Your task to perform on an android device: Search for logitech g502 on costco.com, select the first entry, and add it to the cart. Image 0: 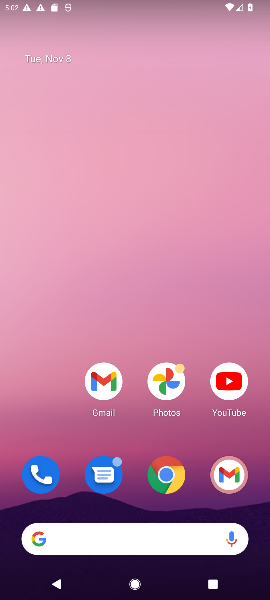
Step 0: drag from (137, 526) to (140, 201)
Your task to perform on an android device: Search for logitech g502 on costco.com, select the first entry, and add it to the cart. Image 1: 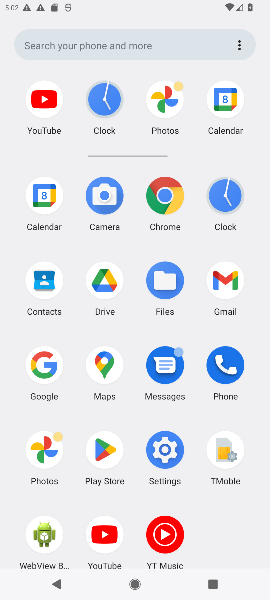
Step 1: click (51, 356)
Your task to perform on an android device: Search for logitech g502 on costco.com, select the first entry, and add it to the cart. Image 2: 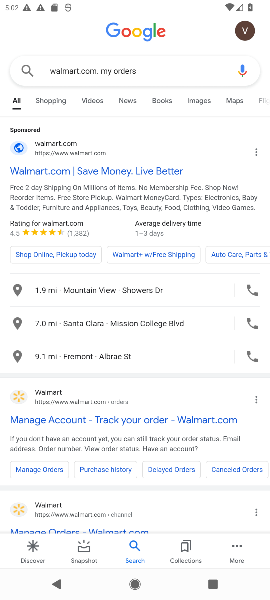
Step 2: click (163, 73)
Your task to perform on an android device: Search for logitech g502 on costco.com, select the first entry, and add it to the cart. Image 3: 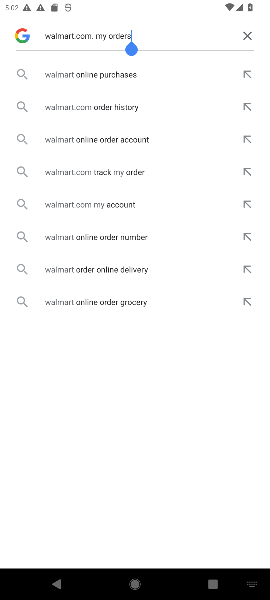
Step 3: click (250, 34)
Your task to perform on an android device: Search for logitech g502 on costco.com, select the first entry, and add it to the cart. Image 4: 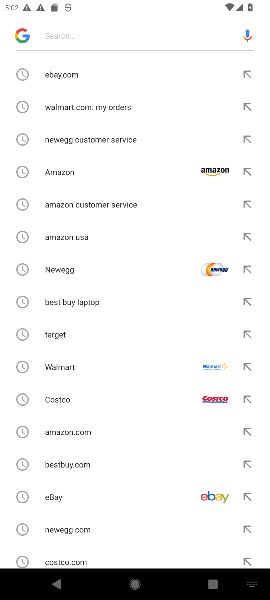
Step 4: click (102, 31)
Your task to perform on an android device: Search for logitech g502 on costco.com, select the first entry, and add it to the cart. Image 5: 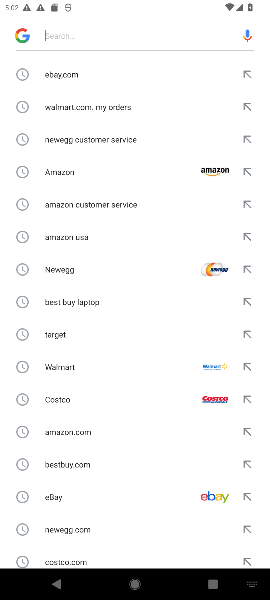
Step 5: type "costco "
Your task to perform on an android device: Search for logitech g502 on costco.com, select the first entry, and add it to the cart. Image 6: 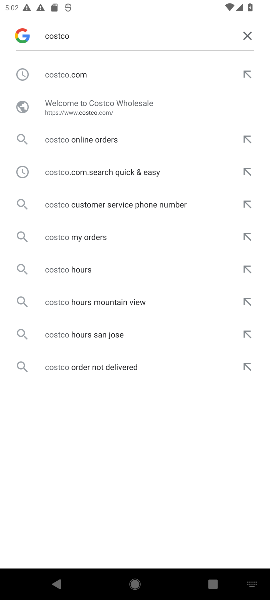
Step 6: click (68, 78)
Your task to perform on an android device: Search for logitech g502 on costco.com, select the first entry, and add it to the cart. Image 7: 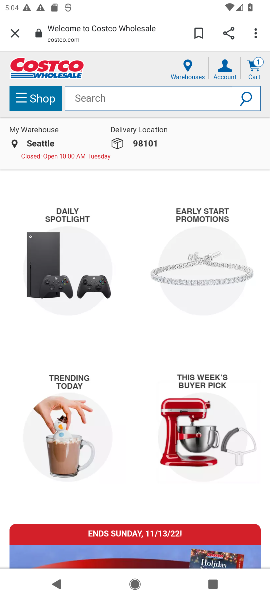
Step 7: click (137, 93)
Your task to perform on an android device: Search for logitech g502 on costco.com, select the first entry, and add it to the cart. Image 8: 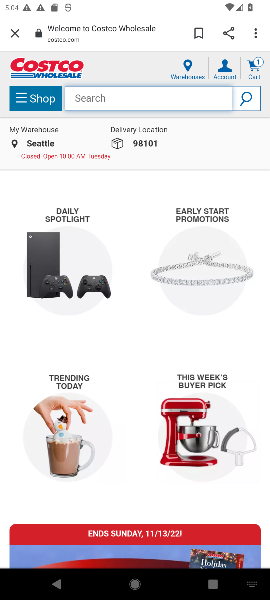
Step 8: type " logitech g502 "
Your task to perform on an android device: Search for logitech g502 on costco.com, select the first entry, and add it to the cart. Image 9: 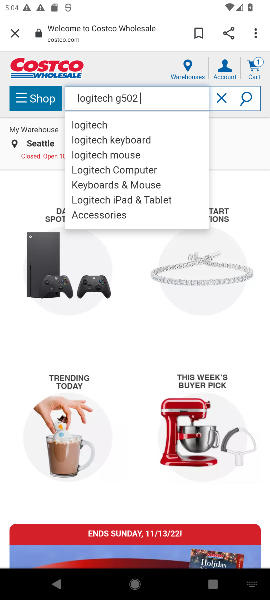
Step 9: click (252, 95)
Your task to perform on an android device: Search for logitech g502 on costco.com, select the first entry, and add it to the cart. Image 10: 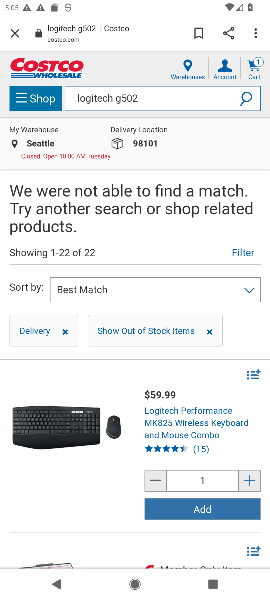
Step 10: drag from (82, 460) to (106, 194)
Your task to perform on an android device: Search for logitech g502 on costco.com, select the first entry, and add it to the cart. Image 11: 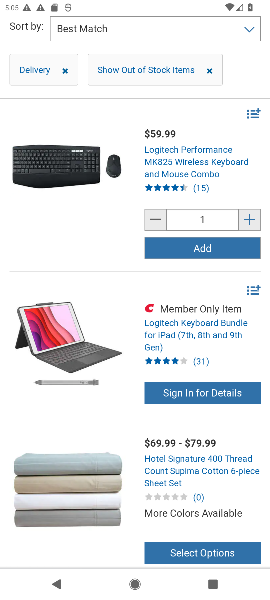
Step 11: click (184, 242)
Your task to perform on an android device: Search for logitech g502 on costco.com, select the first entry, and add it to the cart. Image 12: 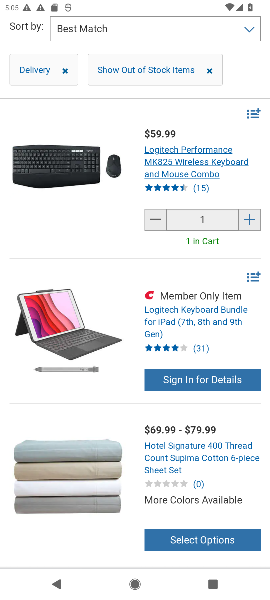
Step 12: task complete